Your task to perform on an android device: move an email to a new category in the gmail app Image 0: 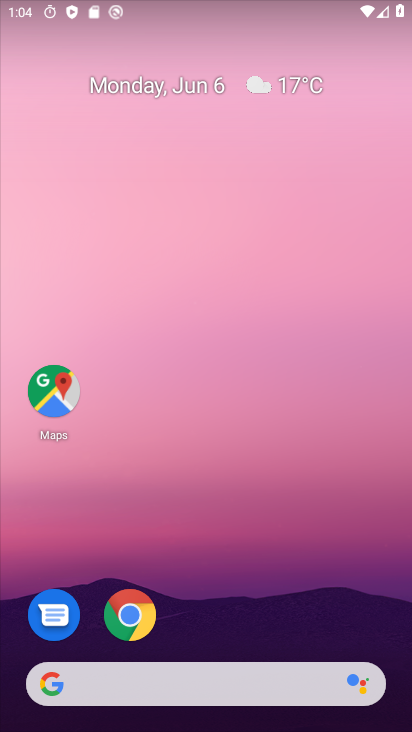
Step 0: drag from (222, 610) to (300, 195)
Your task to perform on an android device: move an email to a new category in the gmail app Image 1: 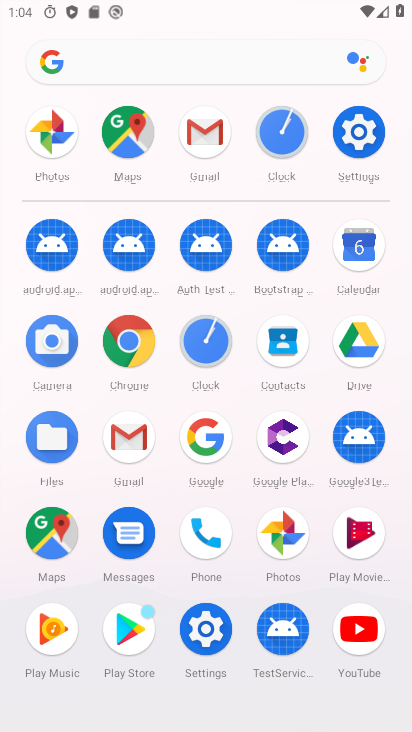
Step 1: drag from (201, 635) to (311, 146)
Your task to perform on an android device: move an email to a new category in the gmail app Image 2: 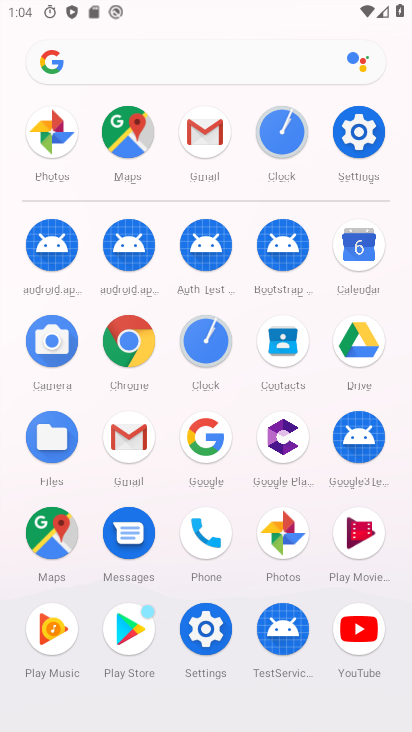
Step 2: click (125, 426)
Your task to perform on an android device: move an email to a new category in the gmail app Image 3: 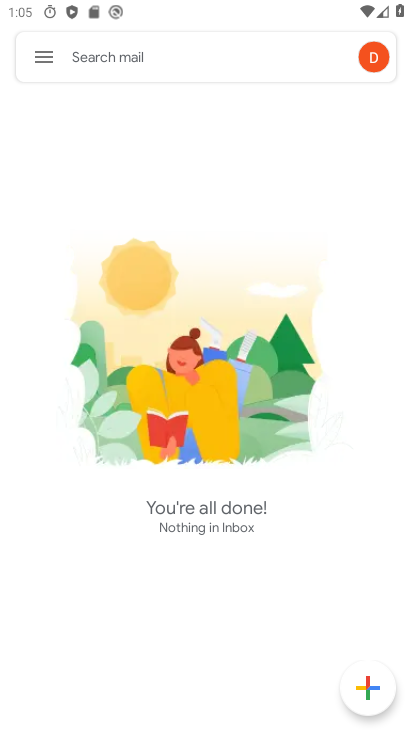
Step 3: drag from (186, 570) to (204, 173)
Your task to perform on an android device: move an email to a new category in the gmail app Image 4: 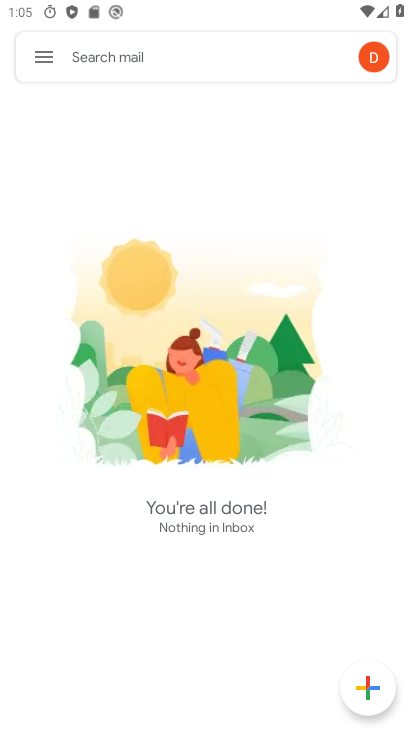
Step 4: click (28, 60)
Your task to perform on an android device: move an email to a new category in the gmail app Image 5: 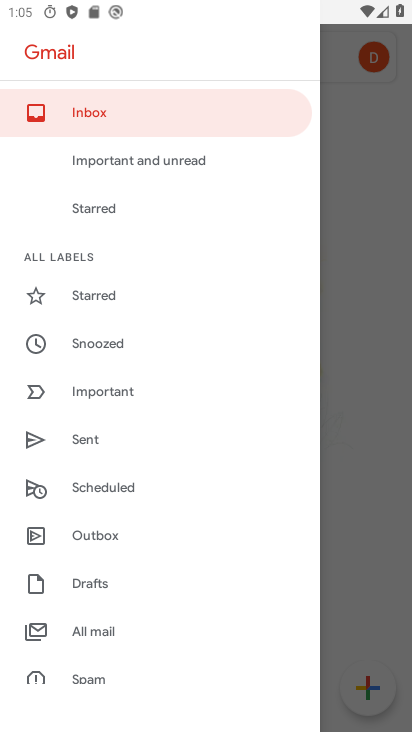
Step 5: drag from (135, 644) to (236, 32)
Your task to perform on an android device: move an email to a new category in the gmail app Image 6: 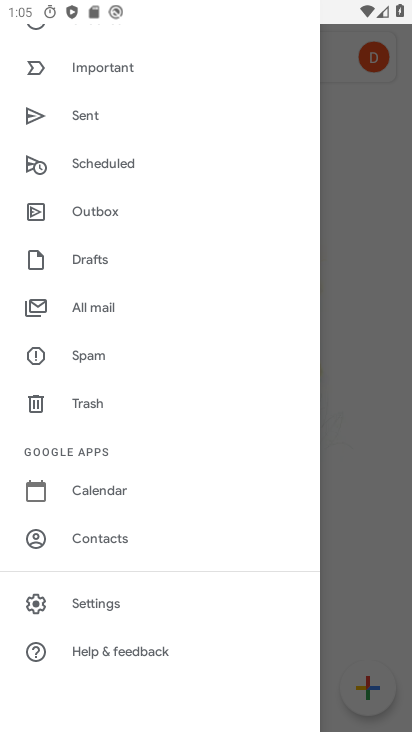
Step 6: drag from (166, 172) to (287, 713)
Your task to perform on an android device: move an email to a new category in the gmail app Image 7: 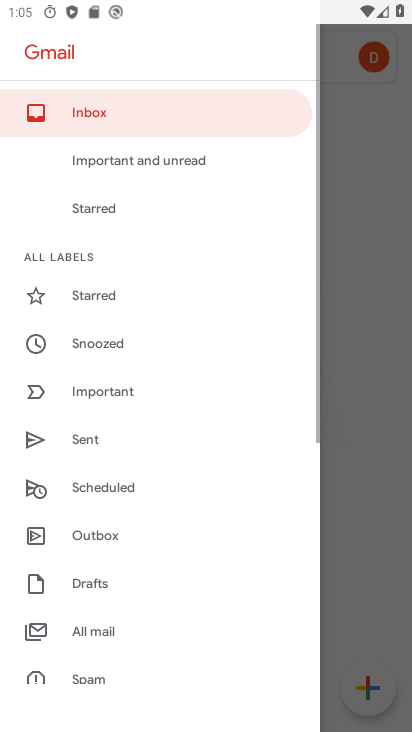
Step 7: drag from (147, 136) to (255, 494)
Your task to perform on an android device: move an email to a new category in the gmail app Image 8: 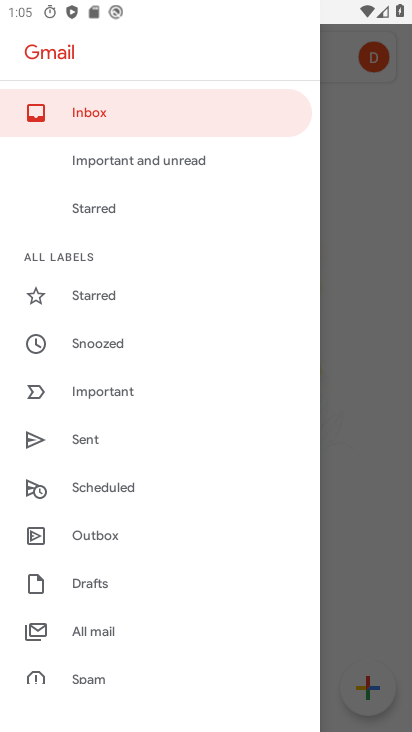
Step 8: click (68, 97)
Your task to perform on an android device: move an email to a new category in the gmail app Image 9: 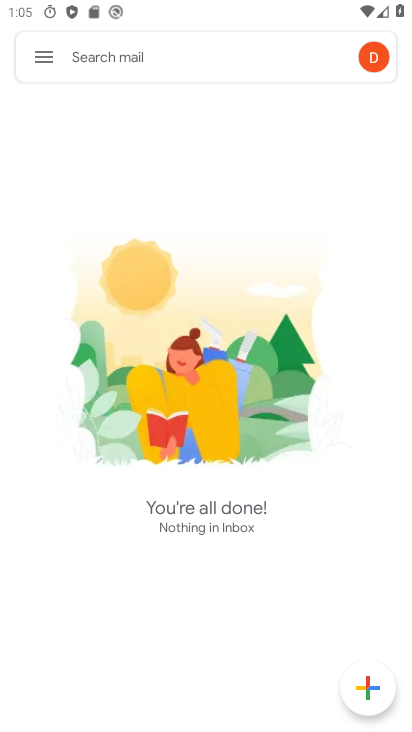
Step 9: task complete